Your task to perform on an android device: change the upload size in google photos Image 0: 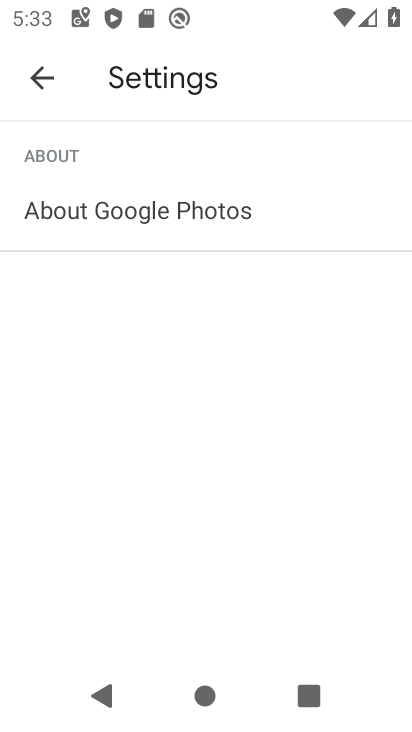
Step 0: click (36, 67)
Your task to perform on an android device: change the upload size in google photos Image 1: 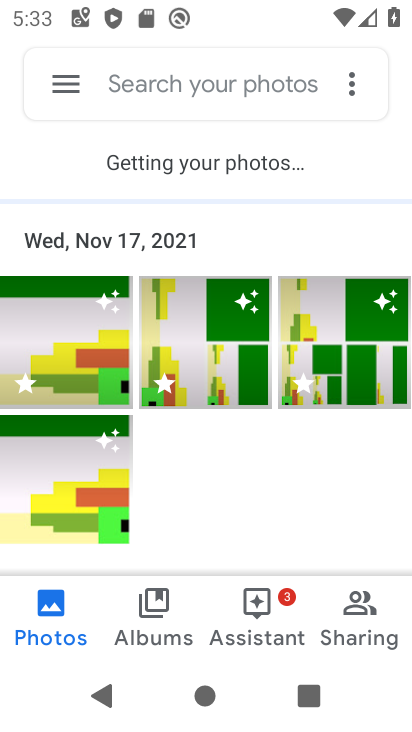
Step 1: click (55, 74)
Your task to perform on an android device: change the upload size in google photos Image 2: 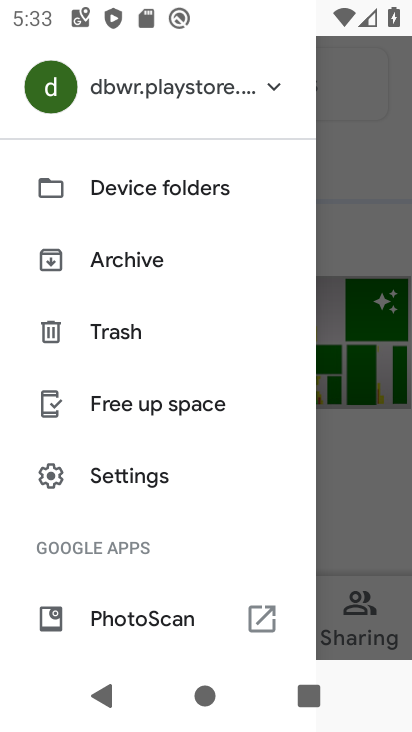
Step 2: click (159, 482)
Your task to perform on an android device: change the upload size in google photos Image 3: 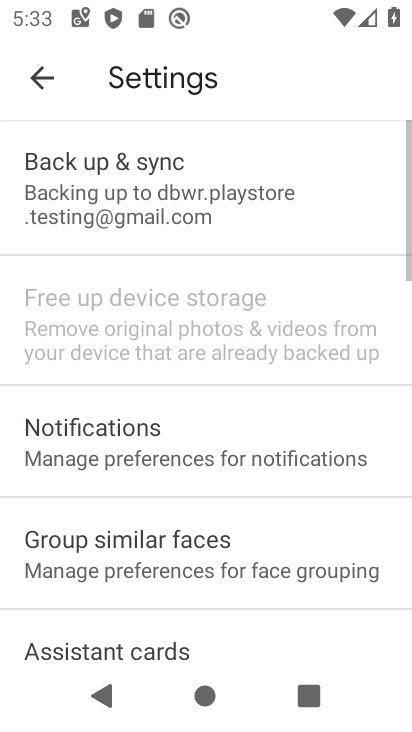
Step 3: click (136, 210)
Your task to perform on an android device: change the upload size in google photos Image 4: 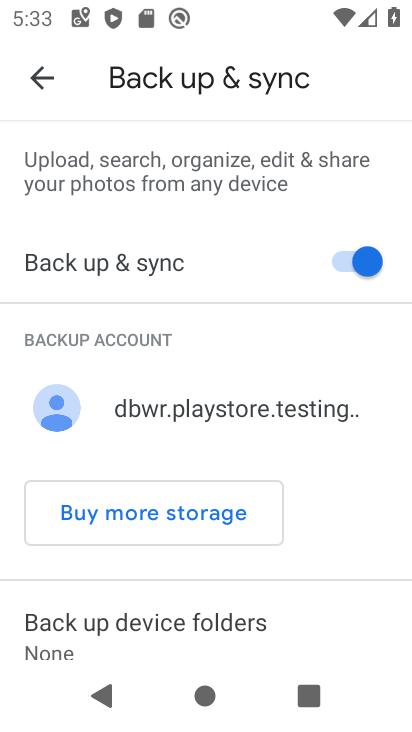
Step 4: drag from (173, 600) to (238, 131)
Your task to perform on an android device: change the upload size in google photos Image 5: 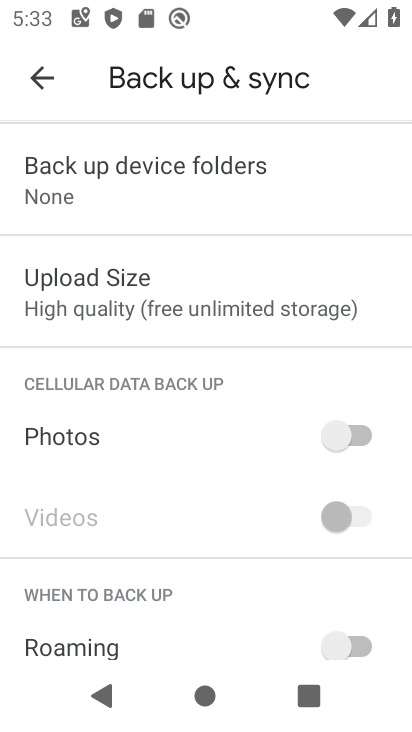
Step 5: drag from (169, 566) to (169, 440)
Your task to perform on an android device: change the upload size in google photos Image 6: 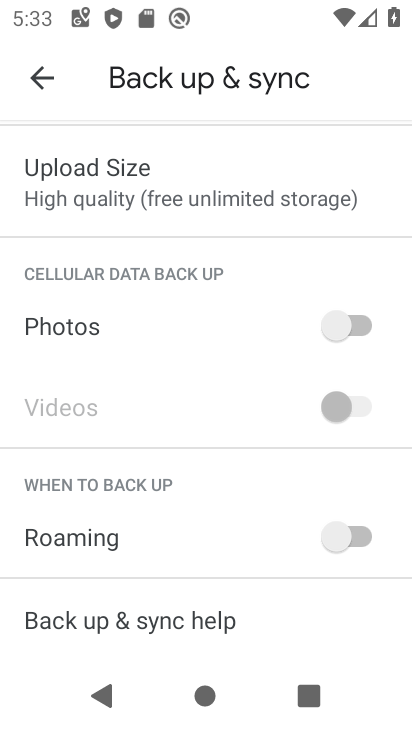
Step 6: click (124, 198)
Your task to perform on an android device: change the upload size in google photos Image 7: 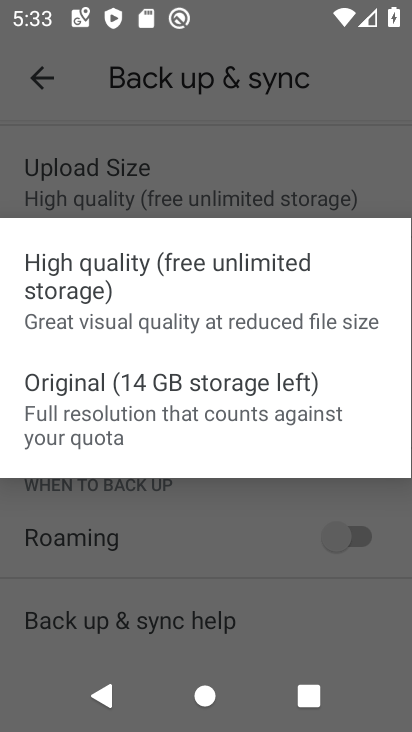
Step 7: click (120, 406)
Your task to perform on an android device: change the upload size in google photos Image 8: 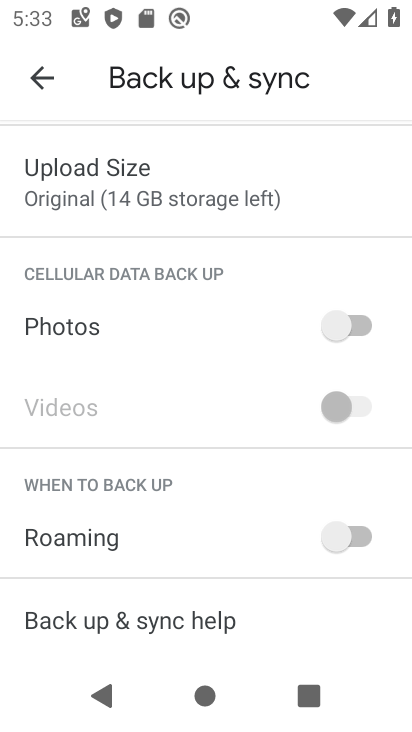
Step 8: task complete